Your task to perform on an android device: install app "Airtel Thanks" Image 0: 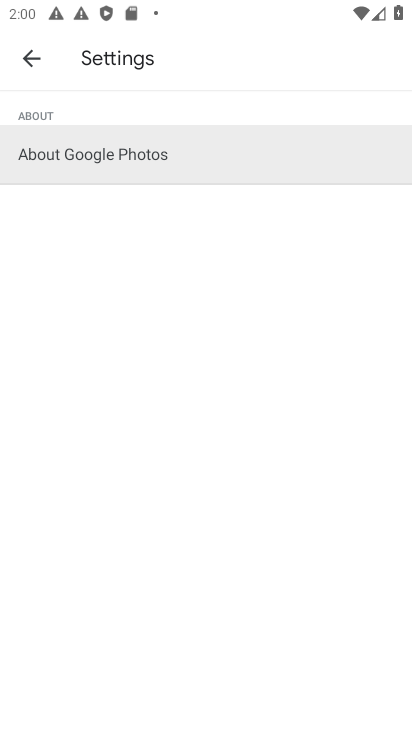
Step 0: press home button
Your task to perform on an android device: install app "Airtel Thanks" Image 1: 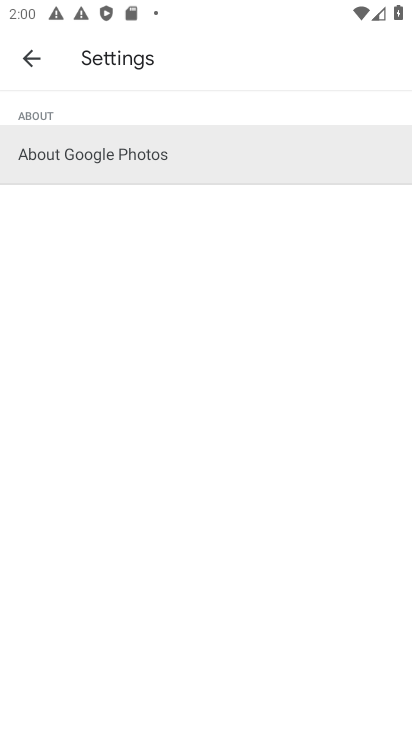
Step 1: press home button
Your task to perform on an android device: install app "Airtel Thanks" Image 2: 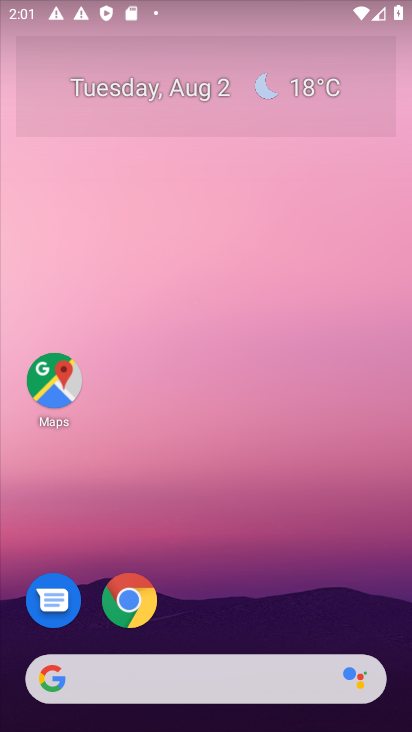
Step 2: click (208, 63)
Your task to perform on an android device: install app "Airtel Thanks" Image 3: 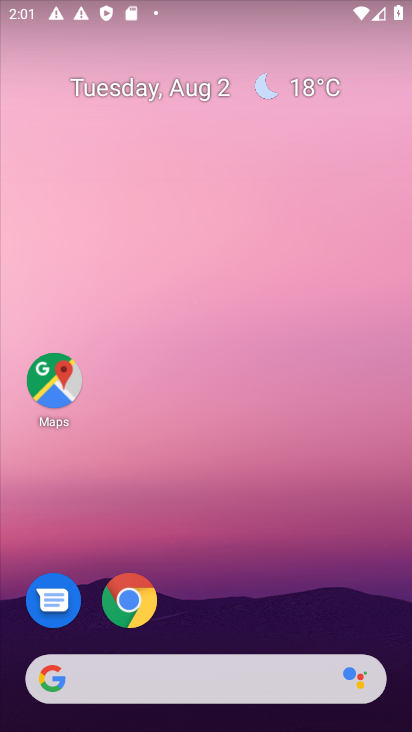
Step 3: drag from (122, 713) to (197, 19)
Your task to perform on an android device: install app "Airtel Thanks" Image 4: 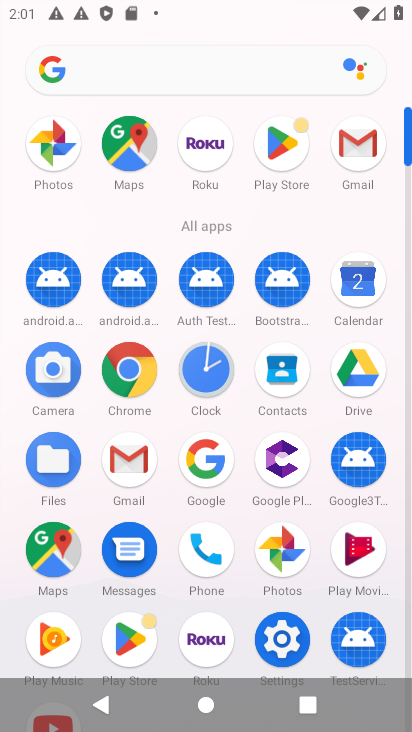
Step 4: click (127, 644)
Your task to perform on an android device: install app "Airtel Thanks" Image 5: 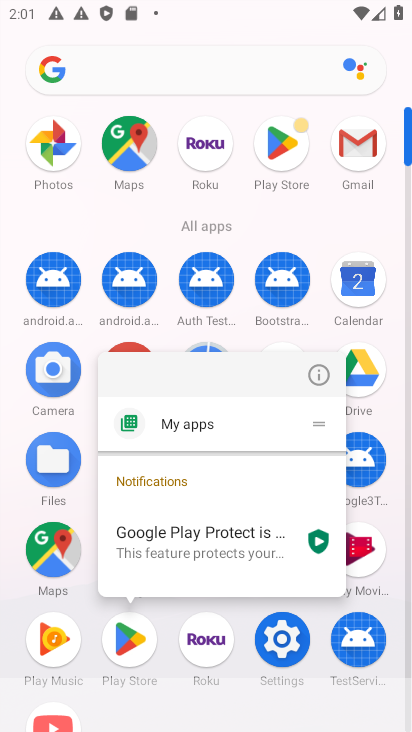
Step 5: click (142, 659)
Your task to perform on an android device: install app "Airtel Thanks" Image 6: 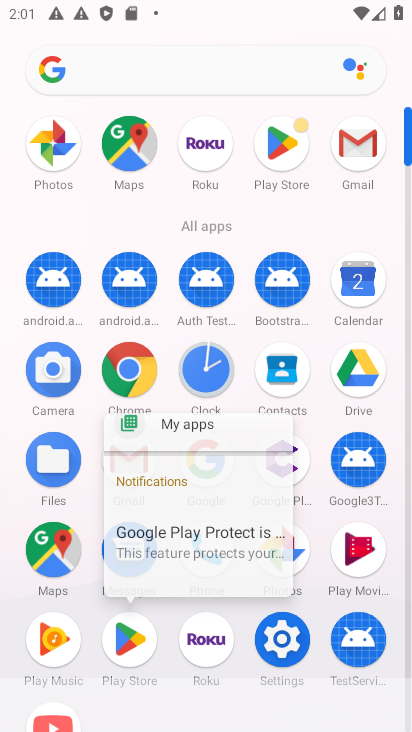
Step 6: click (142, 659)
Your task to perform on an android device: install app "Airtel Thanks" Image 7: 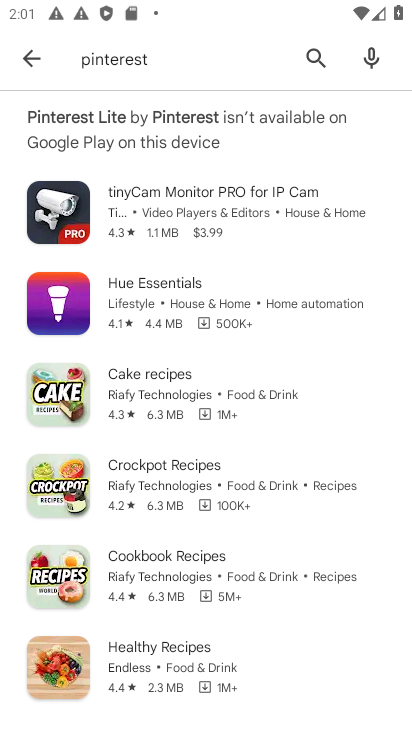
Step 7: click (319, 58)
Your task to perform on an android device: install app "Airtel Thanks" Image 8: 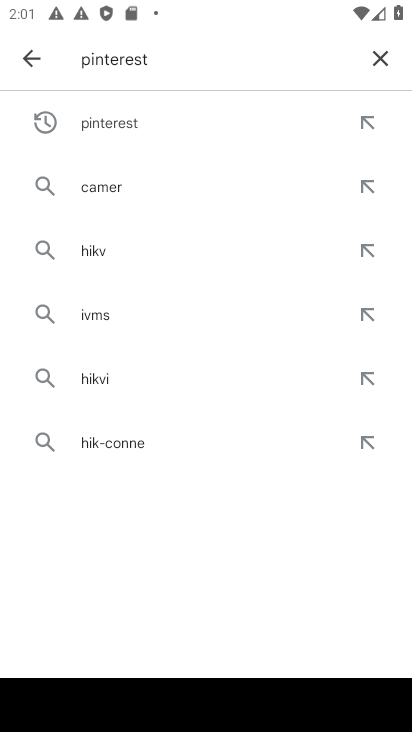
Step 8: click (386, 46)
Your task to perform on an android device: install app "Airtel Thanks" Image 9: 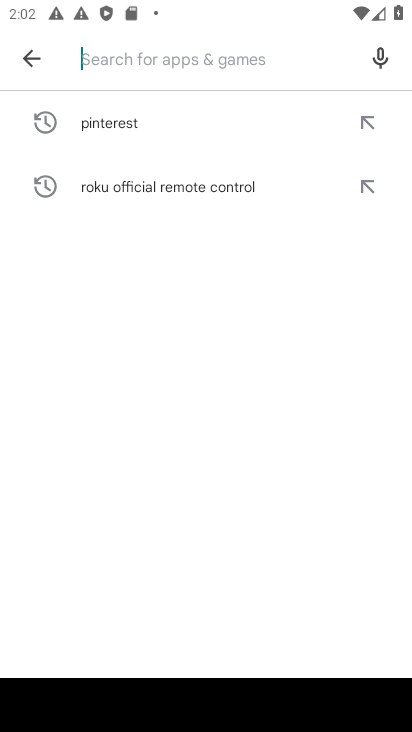
Step 9: type "airtel thanks"
Your task to perform on an android device: install app "Airtel Thanks" Image 10: 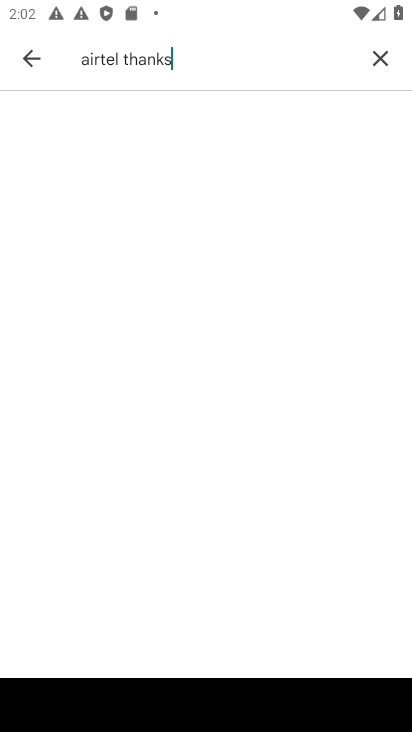
Step 10: press enter
Your task to perform on an android device: install app "Airtel Thanks" Image 11: 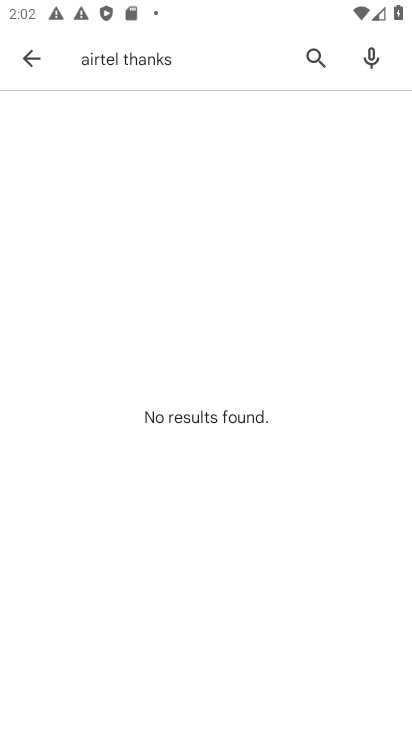
Step 11: click (204, 61)
Your task to perform on an android device: install app "Airtel Thanks" Image 12: 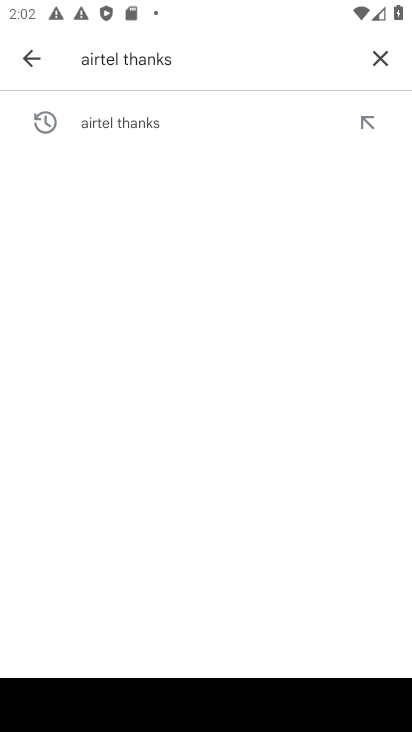
Step 12: click (106, 122)
Your task to perform on an android device: install app "Airtel Thanks" Image 13: 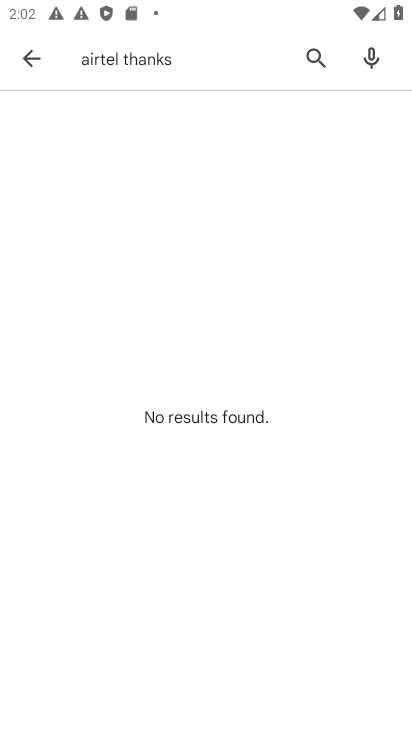
Step 13: task complete